Your task to perform on an android device: open wifi settings Image 0: 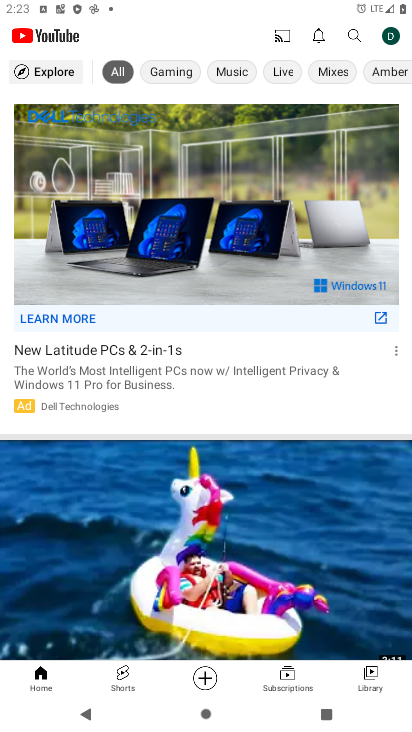
Step 0: press home button
Your task to perform on an android device: open wifi settings Image 1: 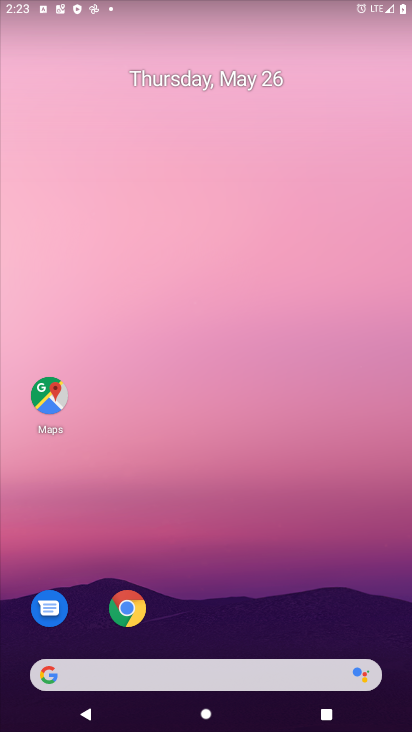
Step 1: drag from (354, 604) to (293, 4)
Your task to perform on an android device: open wifi settings Image 2: 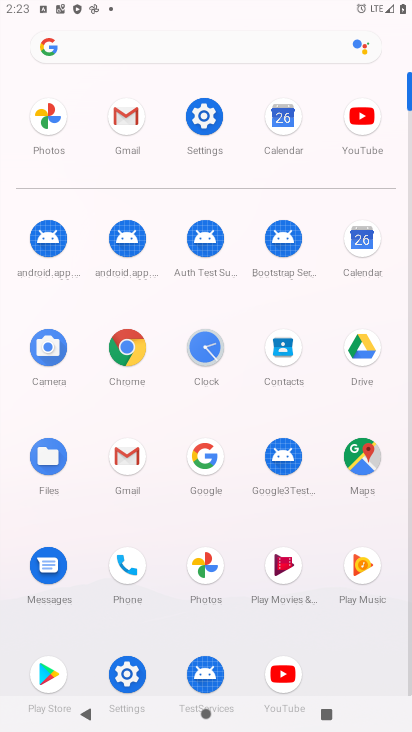
Step 2: click (120, 677)
Your task to perform on an android device: open wifi settings Image 3: 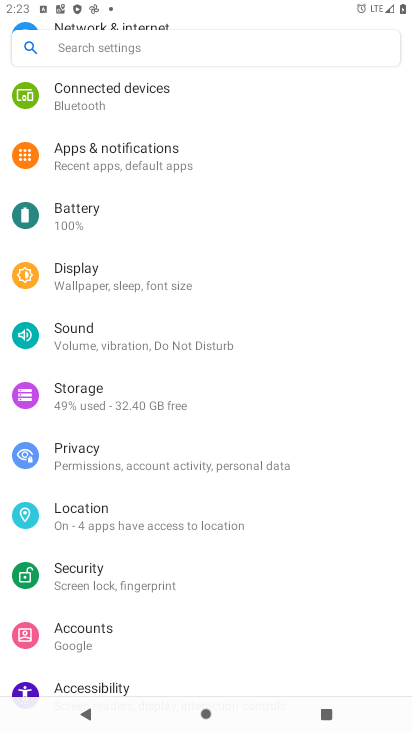
Step 3: drag from (229, 166) to (257, 366)
Your task to perform on an android device: open wifi settings Image 4: 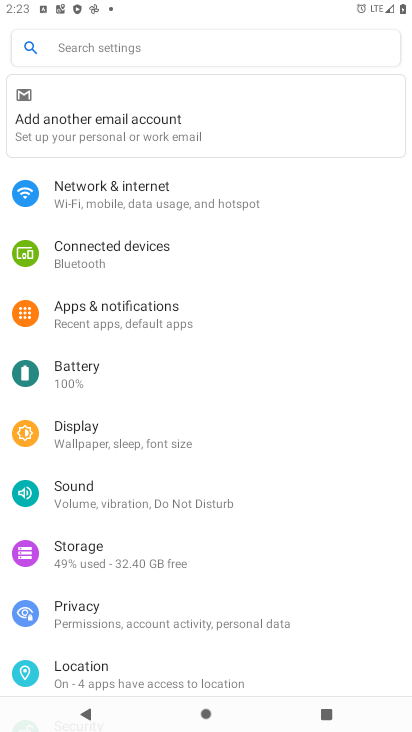
Step 4: click (85, 205)
Your task to perform on an android device: open wifi settings Image 5: 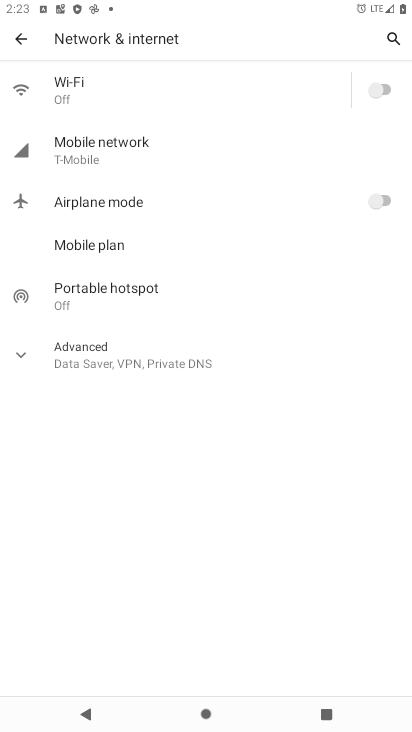
Step 5: click (21, 89)
Your task to perform on an android device: open wifi settings Image 6: 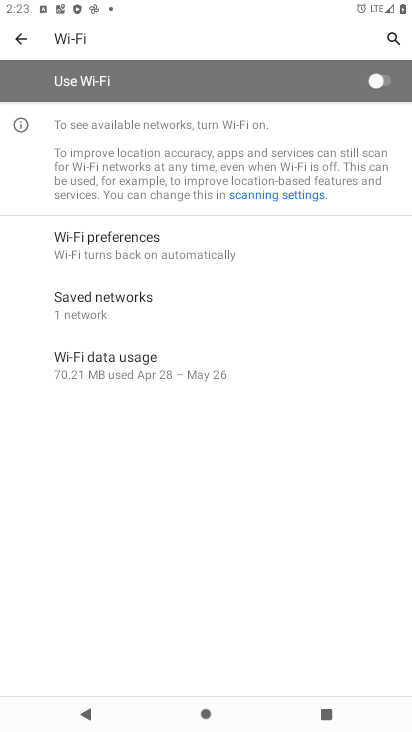
Step 6: task complete